Your task to perform on an android device: Open location settings Image 0: 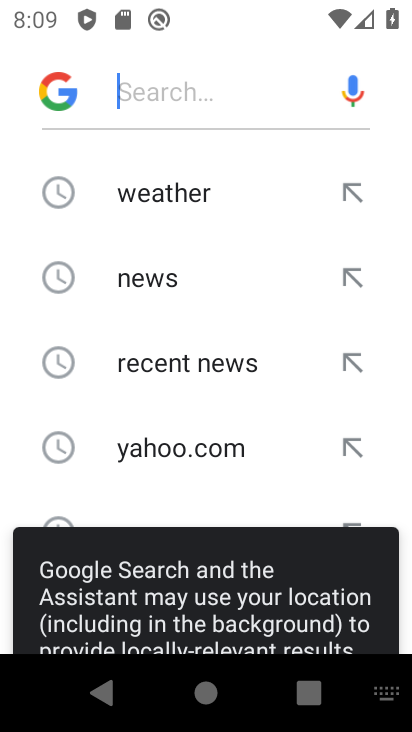
Step 0: press home button
Your task to perform on an android device: Open location settings Image 1: 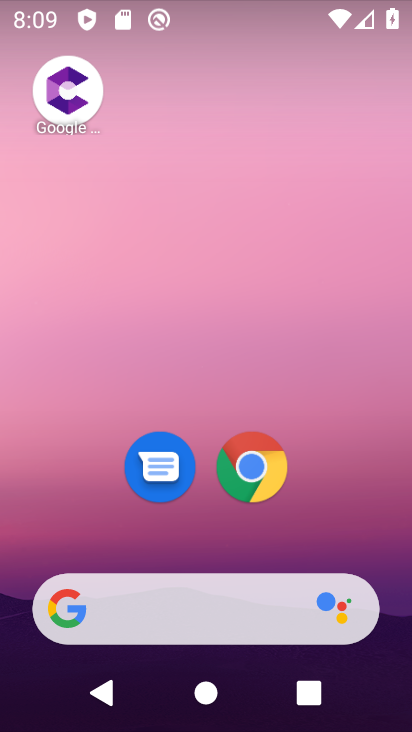
Step 1: drag from (350, 514) to (200, 8)
Your task to perform on an android device: Open location settings Image 2: 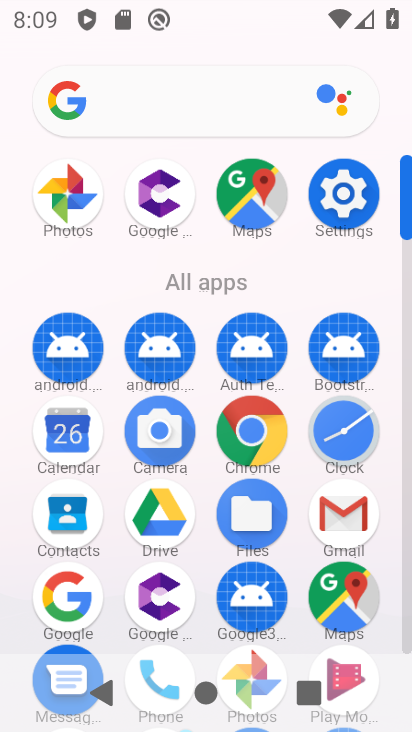
Step 2: click (346, 190)
Your task to perform on an android device: Open location settings Image 3: 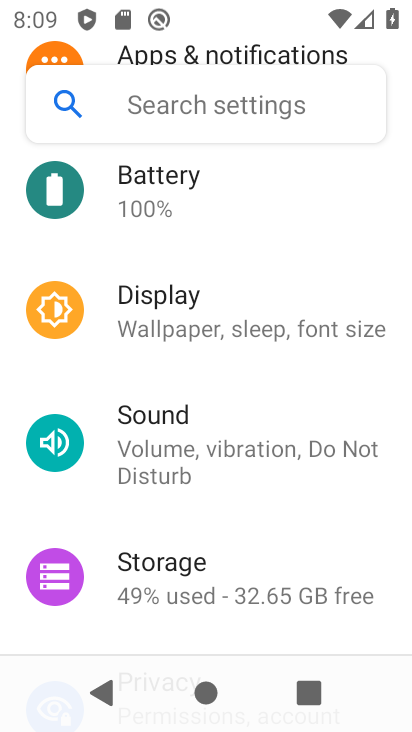
Step 3: drag from (246, 393) to (186, 67)
Your task to perform on an android device: Open location settings Image 4: 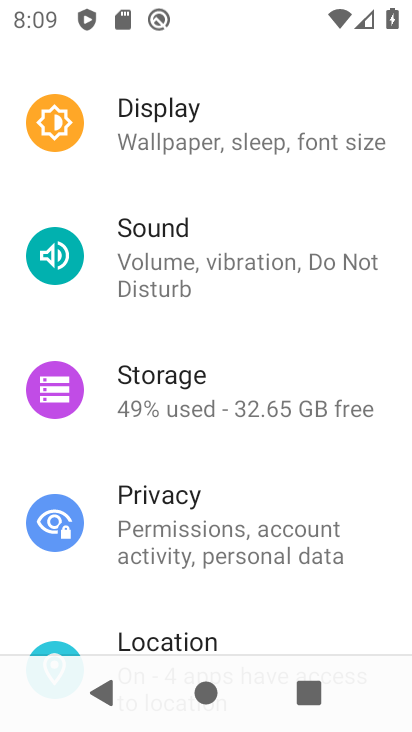
Step 4: drag from (221, 475) to (187, 141)
Your task to perform on an android device: Open location settings Image 5: 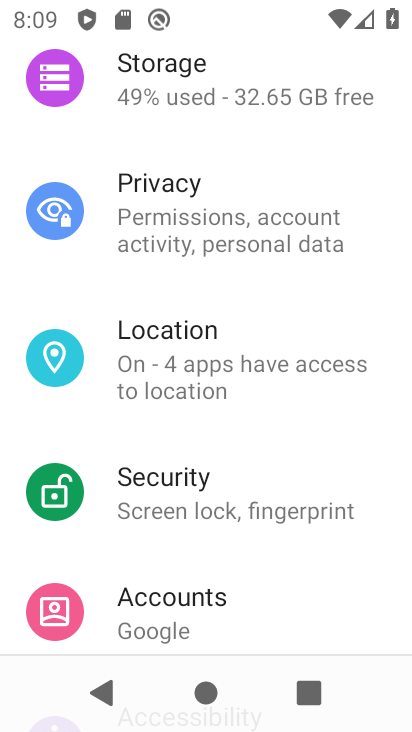
Step 5: click (160, 323)
Your task to perform on an android device: Open location settings Image 6: 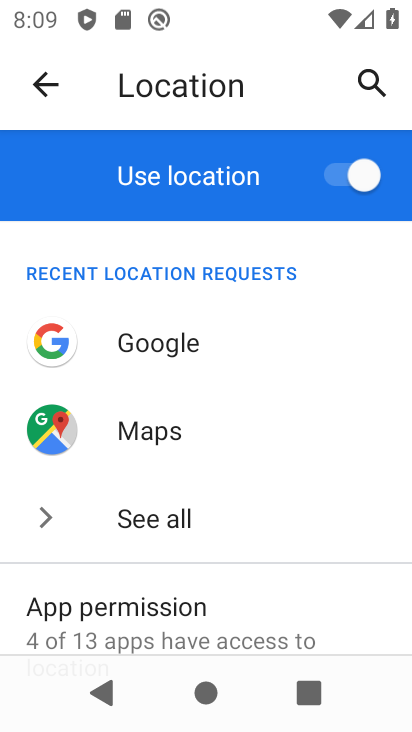
Step 6: task complete